Your task to perform on an android device: toggle notification dots Image 0: 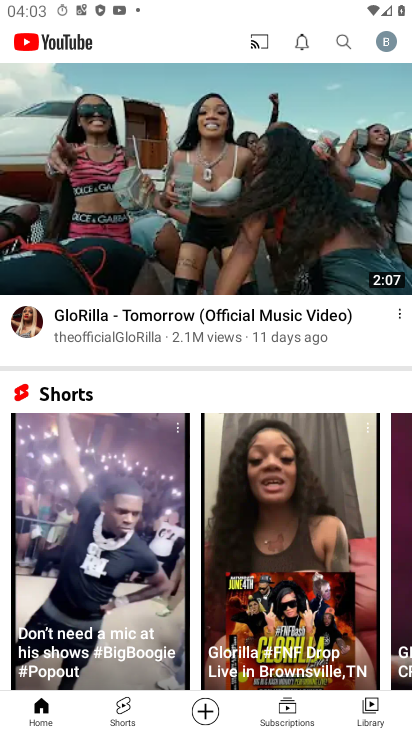
Step 0: press back button
Your task to perform on an android device: toggle notification dots Image 1: 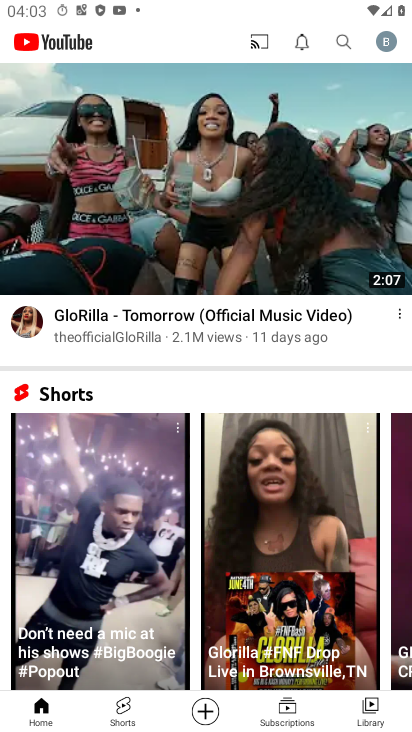
Step 1: press back button
Your task to perform on an android device: toggle notification dots Image 2: 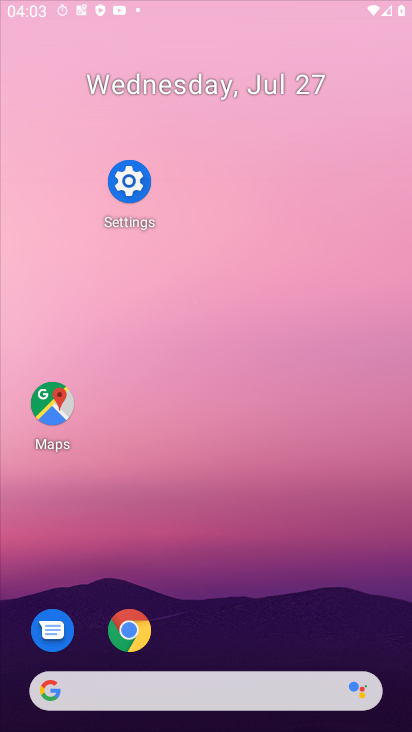
Step 2: press back button
Your task to perform on an android device: toggle notification dots Image 3: 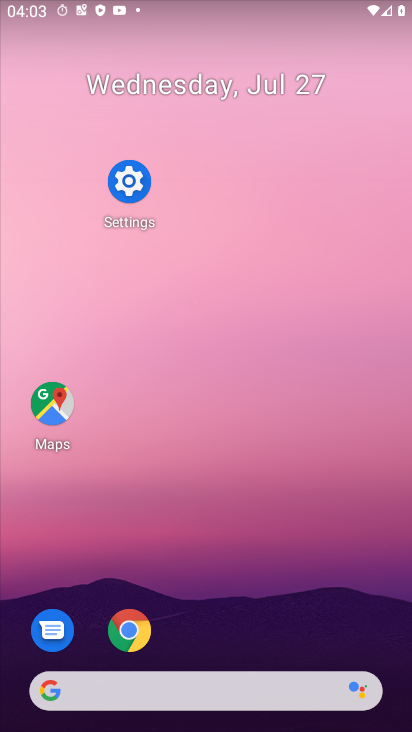
Step 3: drag from (207, 341) to (132, 81)
Your task to perform on an android device: toggle notification dots Image 4: 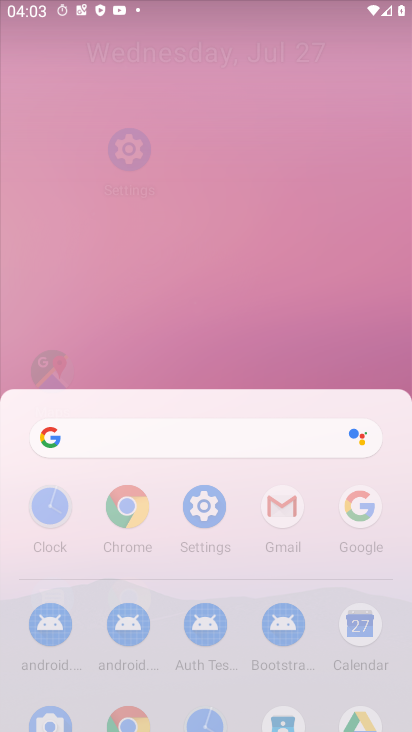
Step 4: drag from (227, 449) to (123, 86)
Your task to perform on an android device: toggle notification dots Image 5: 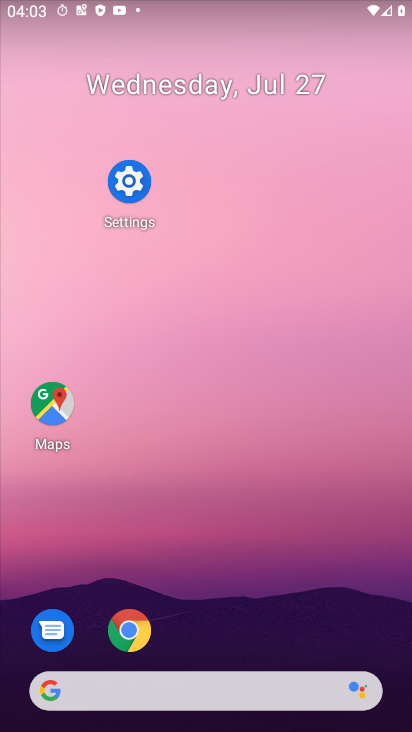
Step 5: drag from (179, 328) to (164, 119)
Your task to perform on an android device: toggle notification dots Image 6: 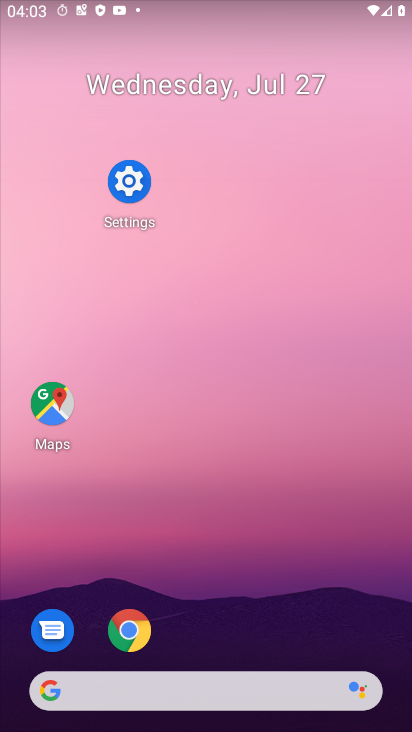
Step 6: drag from (180, 207) to (95, 180)
Your task to perform on an android device: toggle notification dots Image 7: 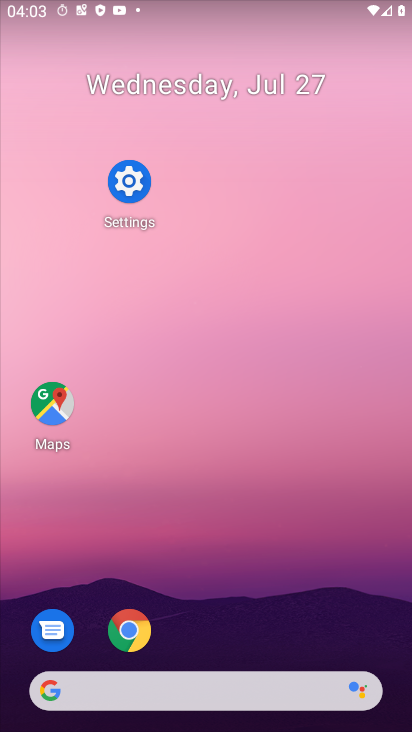
Step 7: drag from (211, 518) to (173, 114)
Your task to perform on an android device: toggle notification dots Image 8: 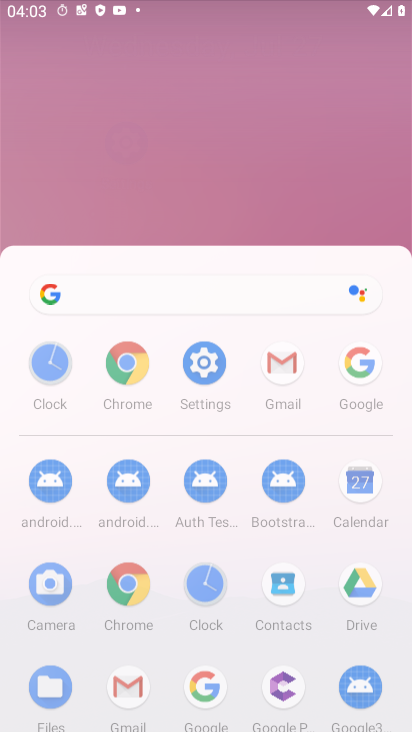
Step 8: drag from (254, 413) to (226, 141)
Your task to perform on an android device: toggle notification dots Image 9: 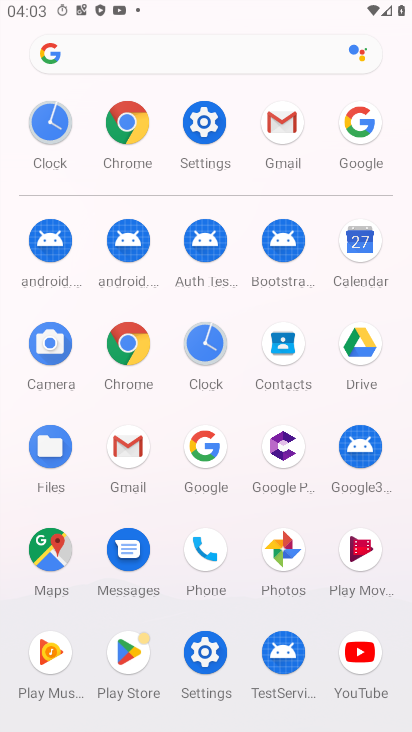
Step 9: click (195, 656)
Your task to perform on an android device: toggle notification dots Image 10: 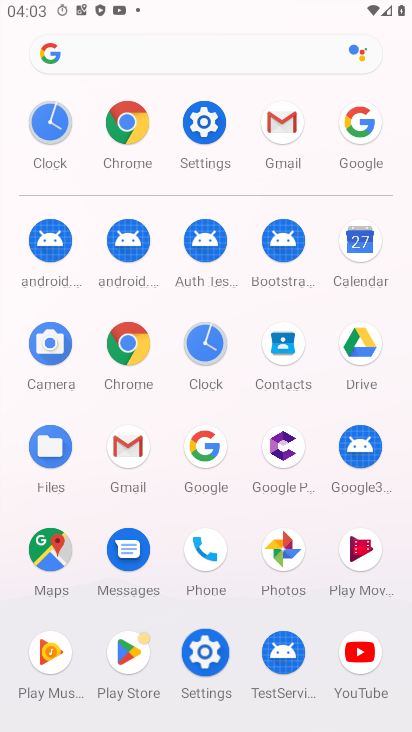
Step 10: click (199, 652)
Your task to perform on an android device: toggle notification dots Image 11: 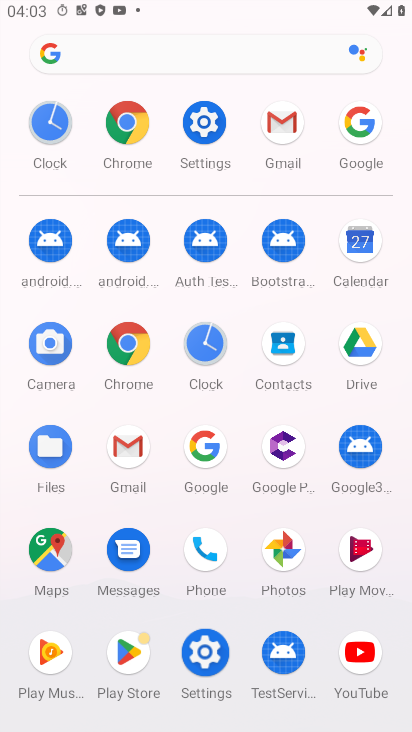
Step 11: click (200, 651)
Your task to perform on an android device: toggle notification dots Image 12: 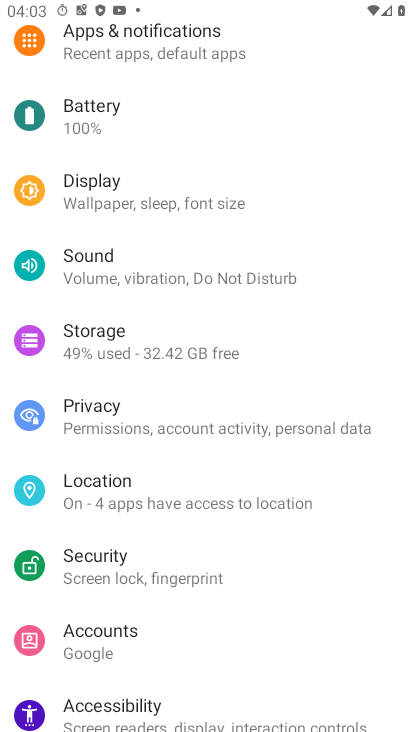
Step 12: drag from (147, 494) to (147, 249)
Your task to perform on an android device: toggle notification dots Image 13: 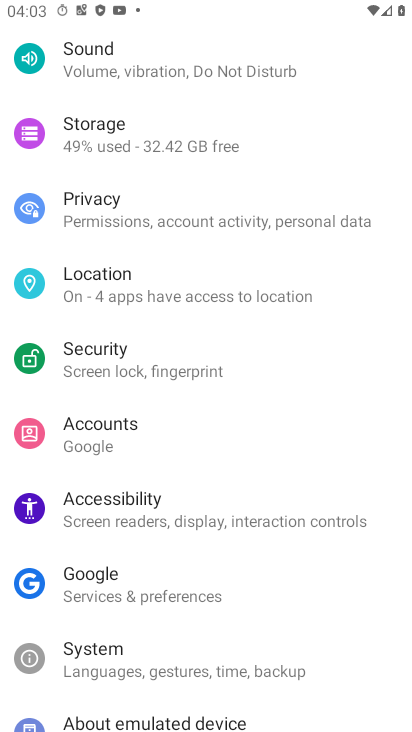
Step 13: drag from (187, 529) to (143, 376)
Your task to perform on an android device: toggle notification dots Image 14: 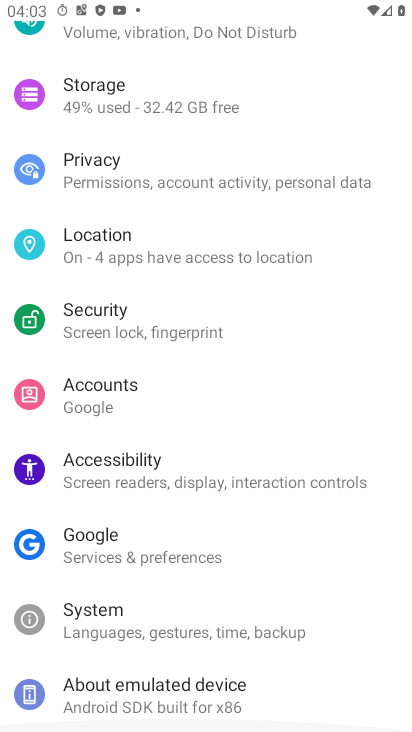
Step 14: drag from (77, 511) to (77, 326)
Your task to perform on an android device: toggle notification dots Image 15: 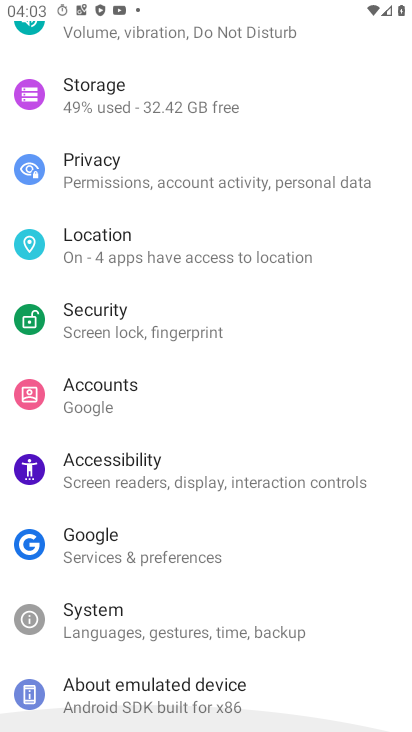
Step 15: drag from (145, 598) to (150, 353)
Your task to perform on an android device: toggle notification dots Image 16: 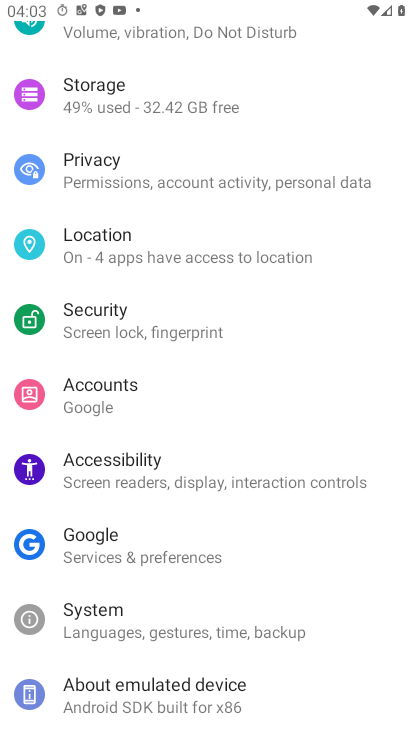
Step 16: drag from (131, 164) to (160, 407)
Your task to perform on an android device: toggle notification dots Image 17: 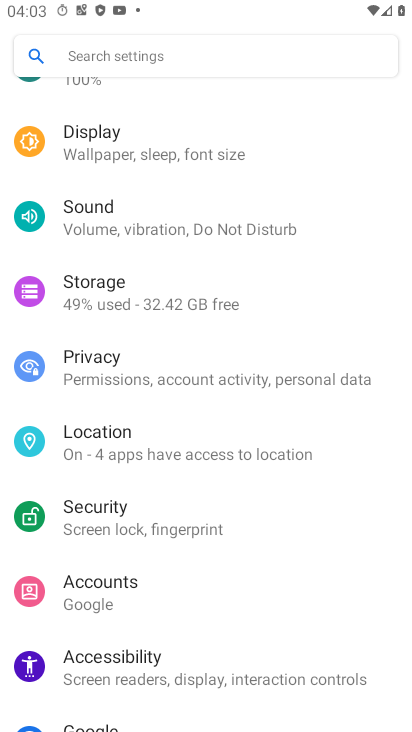
Step 17: drag from (105, 129) to (137, 406)
Your task to perform on an android device: toggle notification dots Image 18: 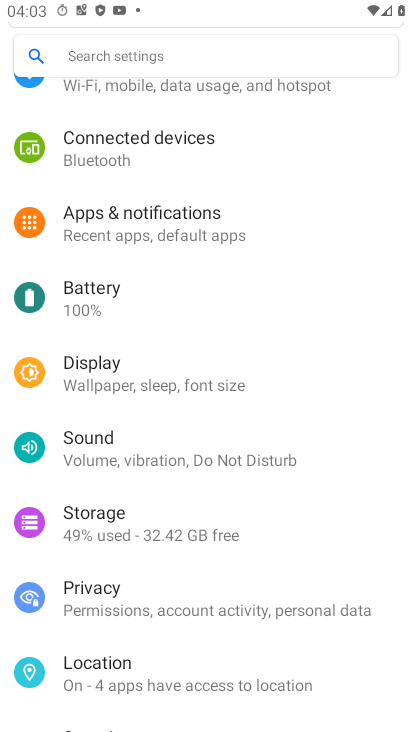
Step 18: drag from (159, 340) to (177, 469)
Your task to perform on an android device: toggle notification dots Image 19: 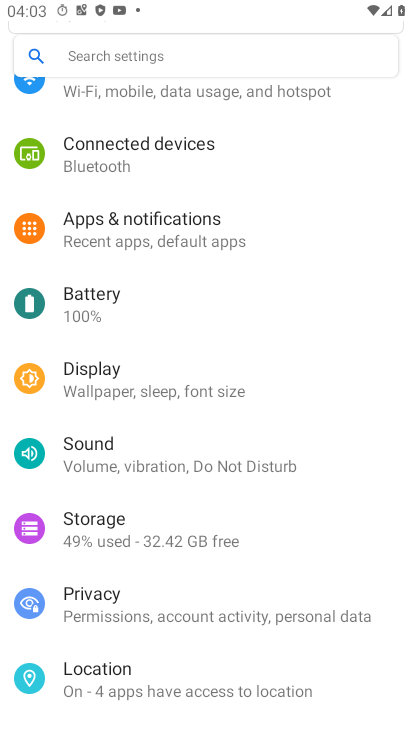
Step 19: drag from (178, 171) to (178, 387)
Your task to perform on an android device: toggle notification dots Image 20: 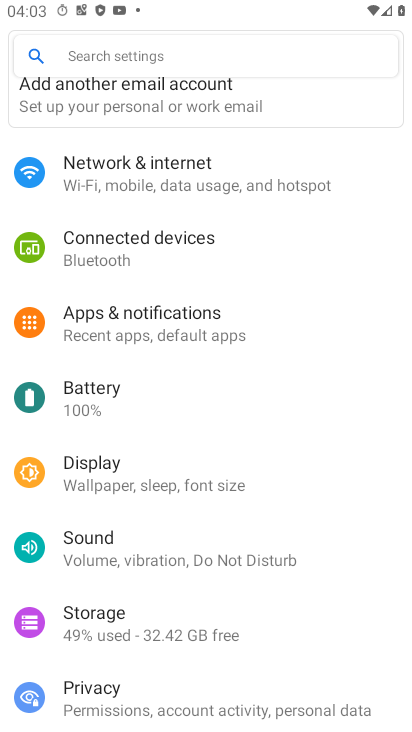
Step 20: drag from (157, 194) to (218, 469)
Your task to perform on an android device: toggle notification dots Image 21: 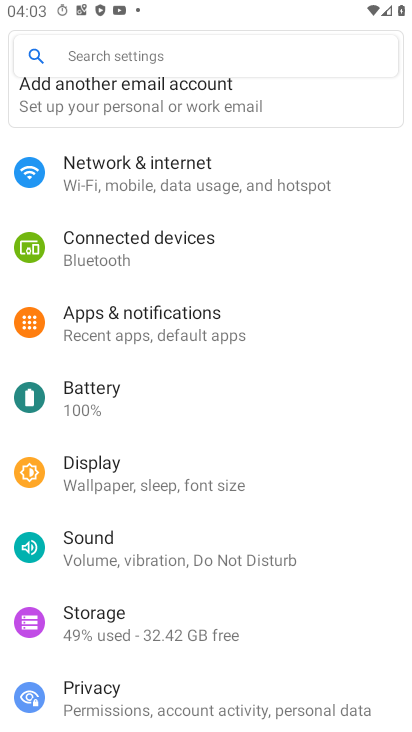
Step 21: drag from (149, 154) to (165, 468)
Your task to perform on an android device: toggle notification dots Image 22: 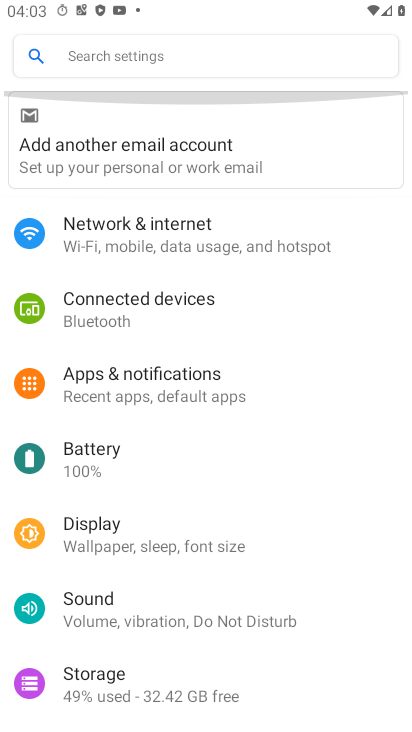
Step 22: drag from (158, 309) to (204, 462)
Your task to perform on an android device: toggle notification dots Image 23: 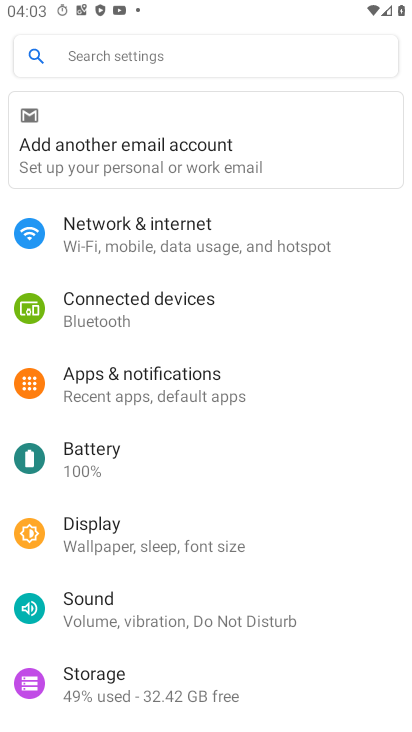
Step 23: click (122, 381)
Your task to perform on an android device: toggle notification dots Image 24: 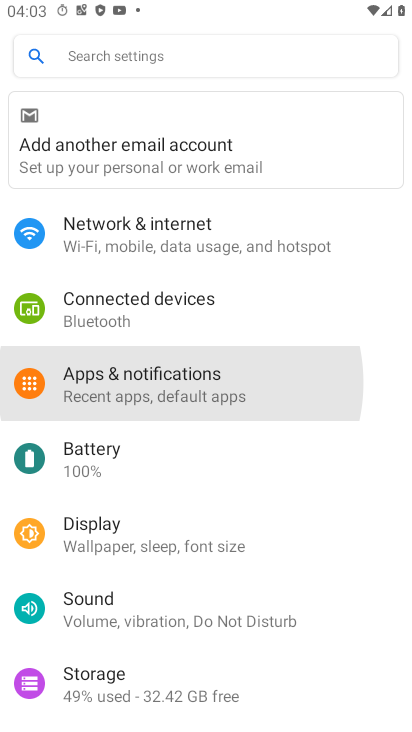
Step 24: click (133, 366)
Your task to perform on an android device: toggle notification dots Image 25: 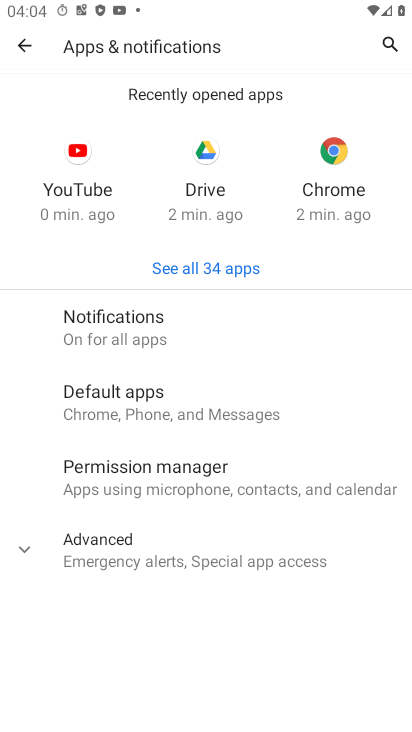
Step 25: drag from (248, 672) to (186, 240)
Your task to perform on an android device: toggle notification dots Image 26: 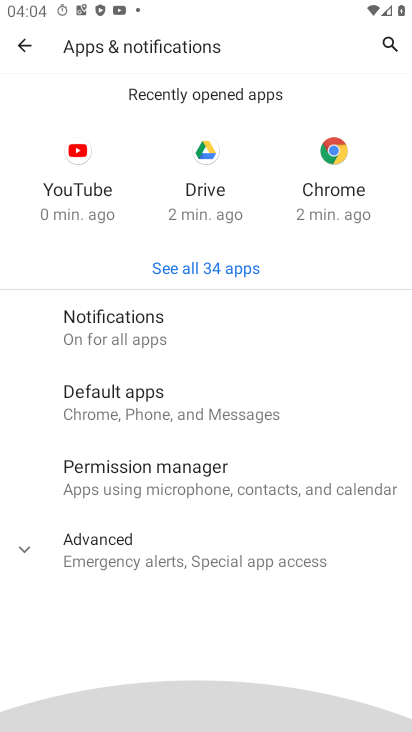
Step 26: drag from (276, 556) to (245, 301)
Your task to perform on an android device: toggle notification dots Image 27: 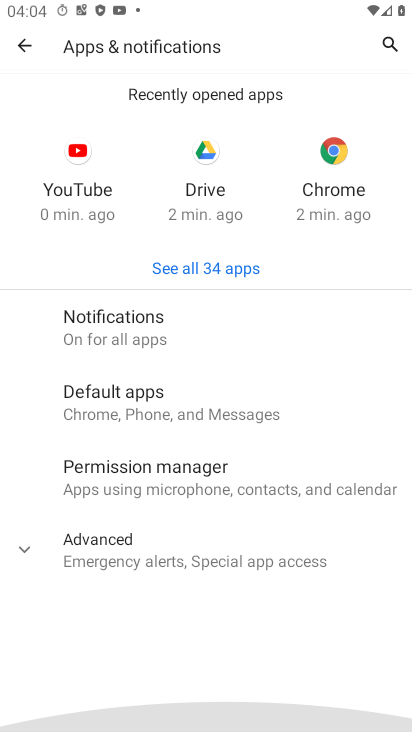
Step 27: drag from (321, 516) to (302, 326)
Your task to perform on an android device: toggle notification dots Image 28: 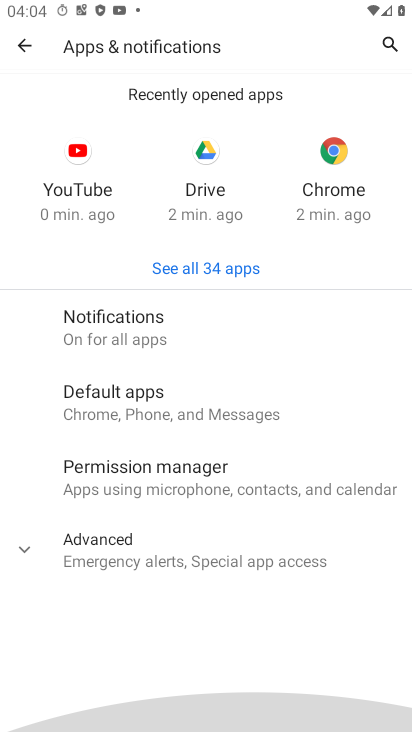
Step 28: drag from (295, 483) to (253, 405)
Your task to perform on an android device: toggle notification dots Image 29: 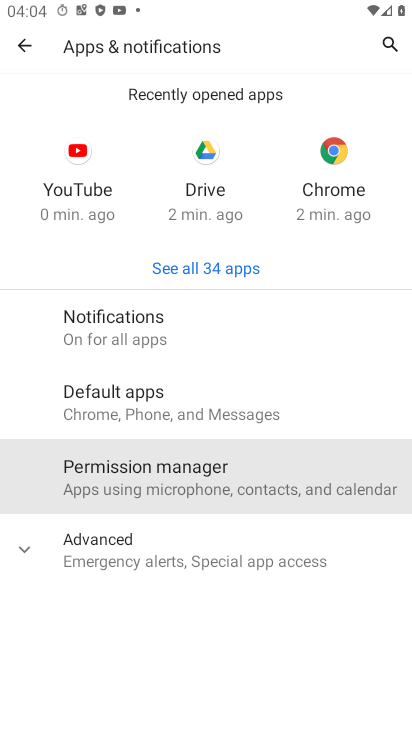
Step 29: drag from (268, 536) to (213, 284)
Your task to perform on an android device: toggle notification dots Image 30: 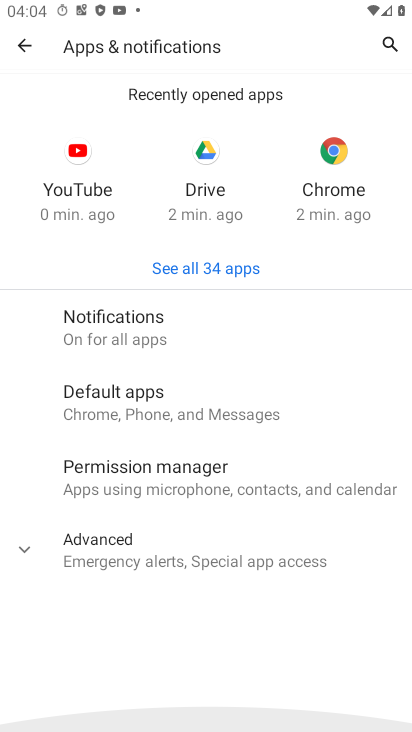
Step 30: drag from (241, 502) to (192, 338)
Your task to perform on an android device: toggle notification dots Image 31: 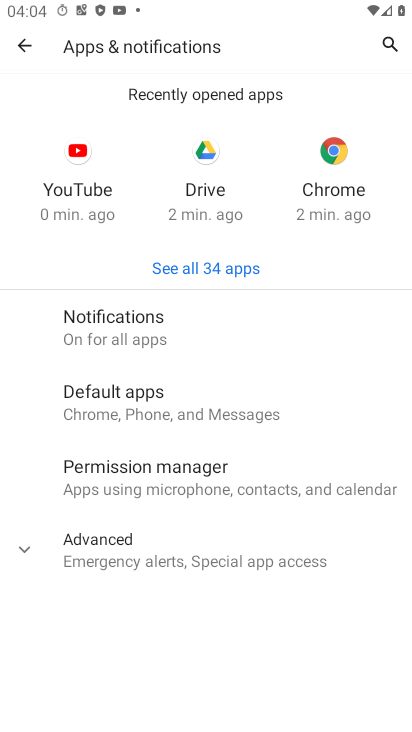
Step 31: click (103, 325)
Your task to perform on an android device: toggle notification dots Image 32: 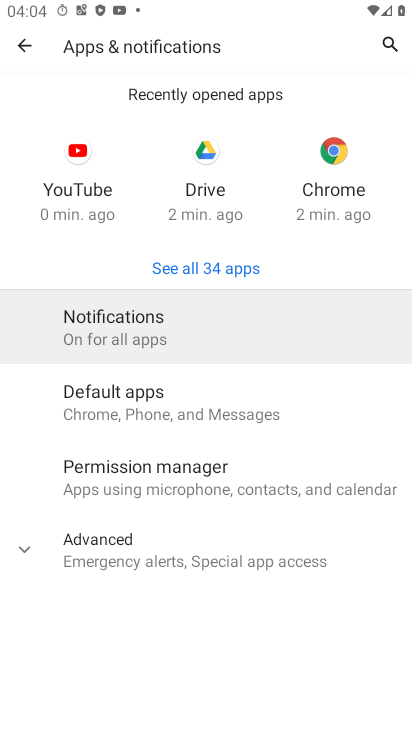
Step 32: click (104, 319)
Your task to perform on an android device: toggle notification dots Image 33: 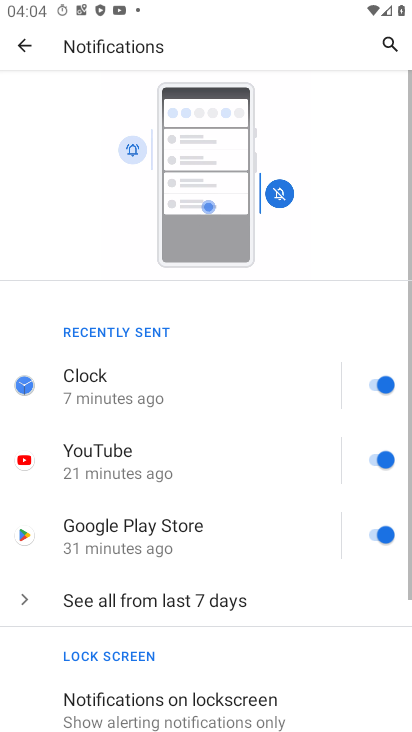
Step 33: drag from (224, 555) to (171, 235)
Your task to perform on an android device: toggle notification dots Image 34: 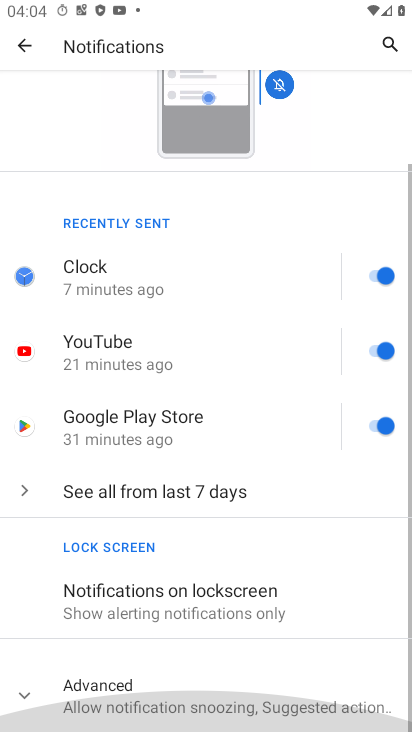
Step 34: drag from (210, 463) to (147, 229)
Your task to perform on an android device: toggle notification dots Image 35: 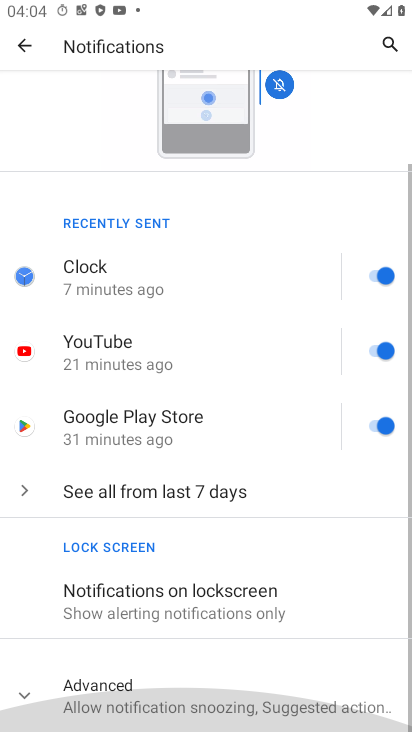
Step 35: drag from (223, 555) to (210, 290)
Your task to perform on an android device: toggle notification dots Image 36: 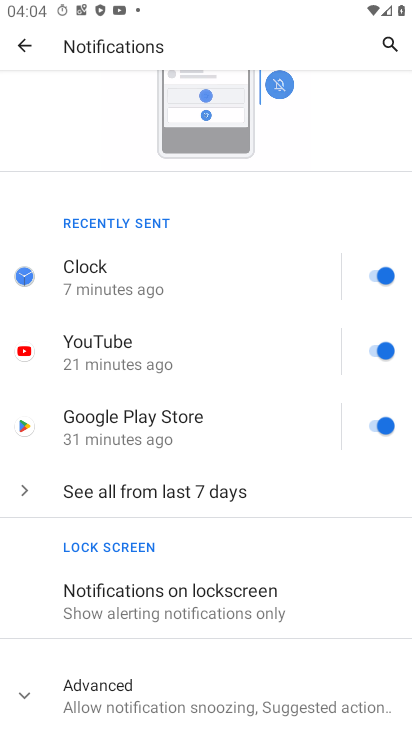
Step 36: click (99, 699)
Your task to perform on an android device: toggle notification dots Image 37: 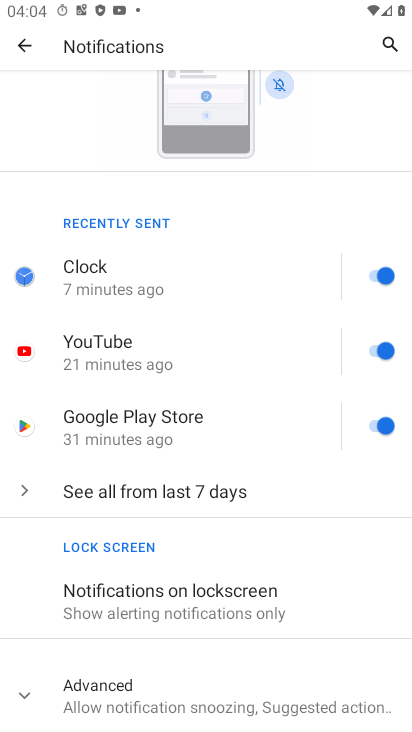
Step 37: click (98, 698)
Your task to perform on an android device: toggle notification dots Image 38: 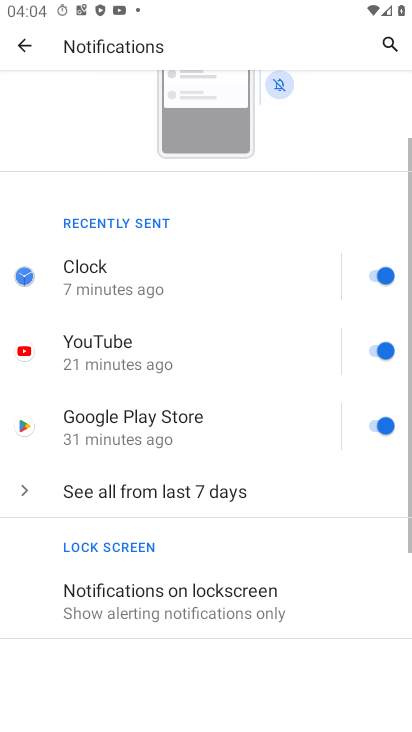
Step 38: click (98, 697)
Your task to perform on an android device: toggle notification dots Image 39: 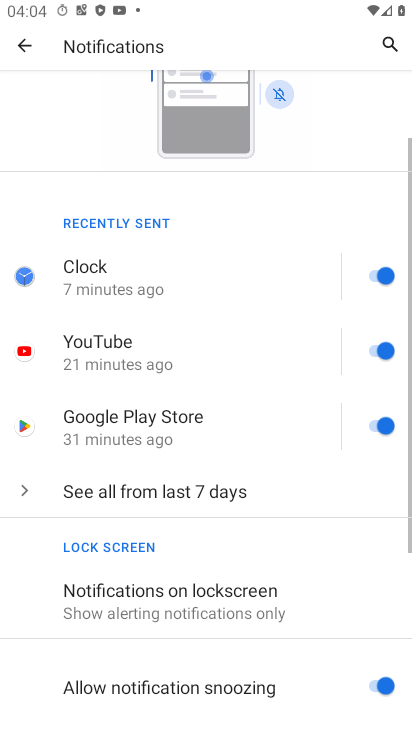
Step 39: drag from (235, 640) to (194, 343)
Your task to perform on an android device: toggle notification dots Image 40: 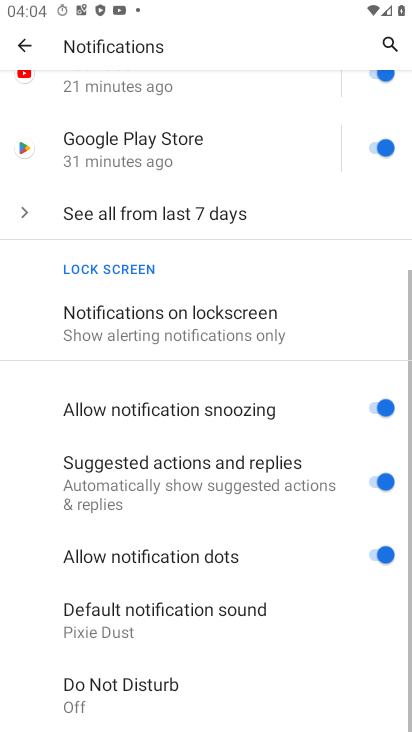
Step 40: drag from (241, 553) to (211, 312)
Your task to perform on an android device: toggle notification dots Image 41: 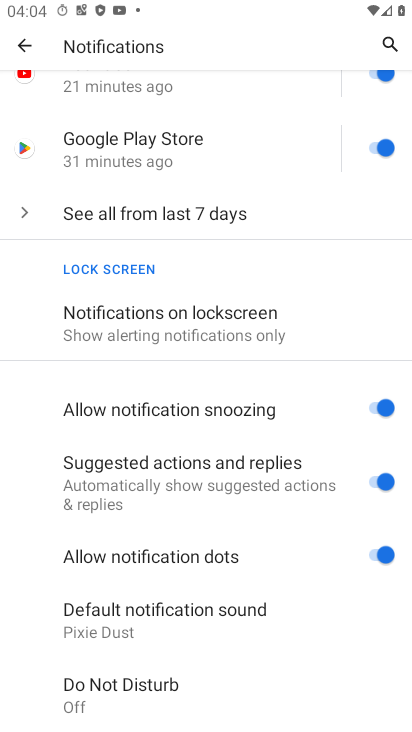
Step 41: click (377, 534)
Your task to perform on an android device: toggle notification dots Image 42: 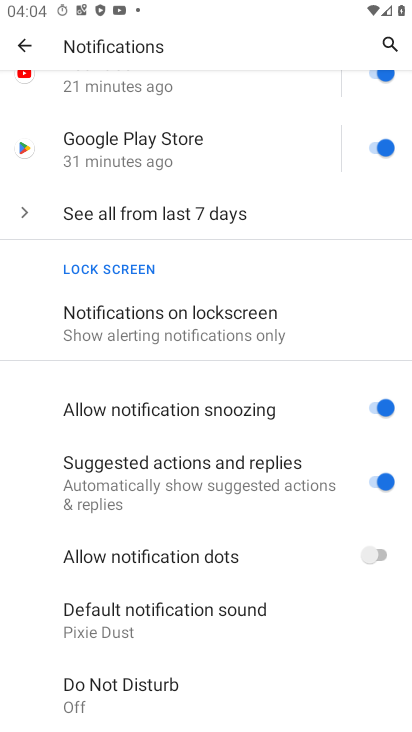
Step 42: task complete